Your task to perform on an android device: When is my next appointment? Image 0: 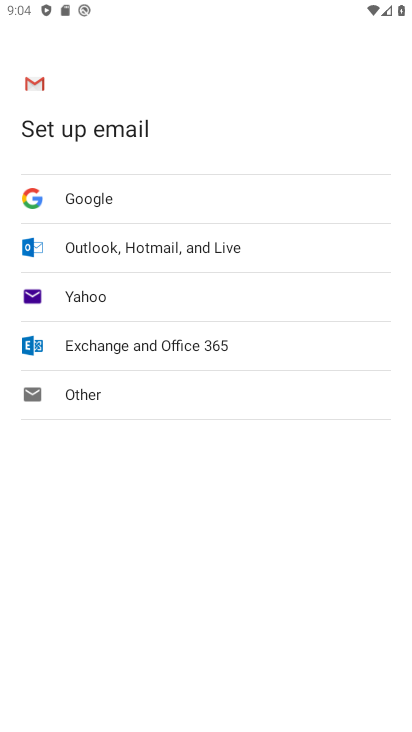
Step 0: press home button
Your task to perform on an android device: When is my next appointment? Image 1: 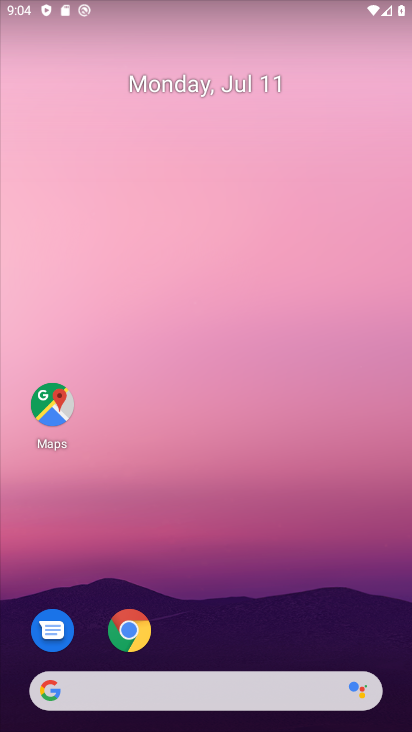
Step 1: drag from (264, 675) to (282, 16)
Your task to perform on an android device: When is my next appointment? Image 2: 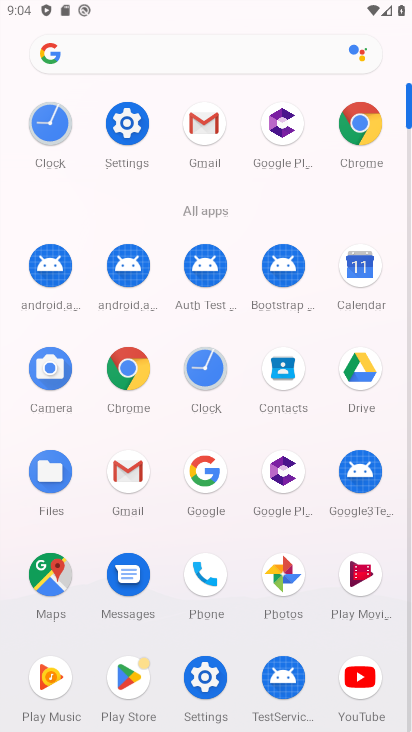
Step 2: click (359, 265)
Your task to perform on an android device: When is my next appointment? Image 3: 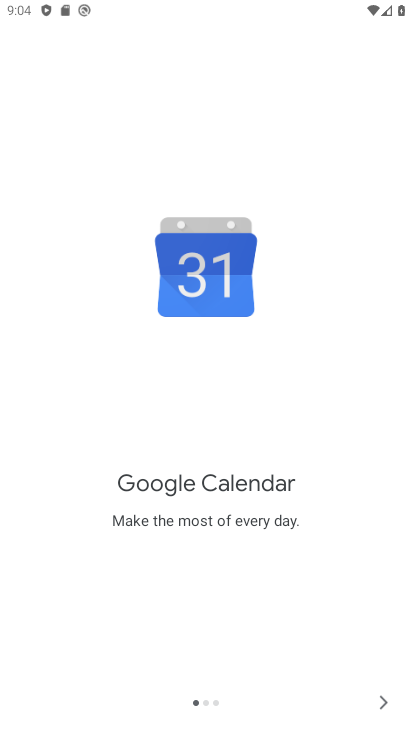
Step 3: click (385, 698)
Your task to perform on an android device: When is my next appointment? Image 4: 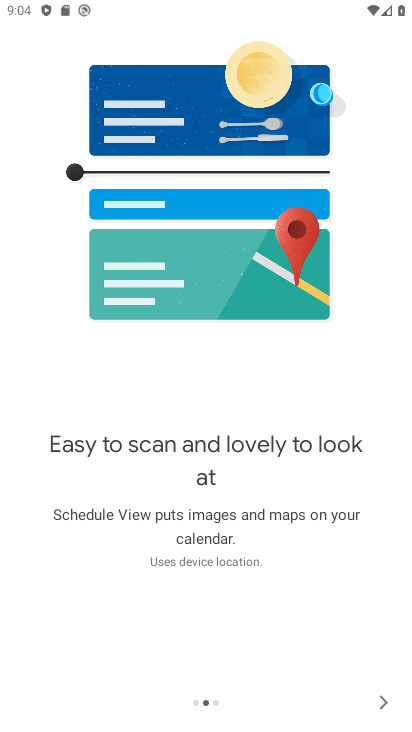
Step 4: click (385, 698)
Your task to perform on an android device: When is my next appointment? Image 5: 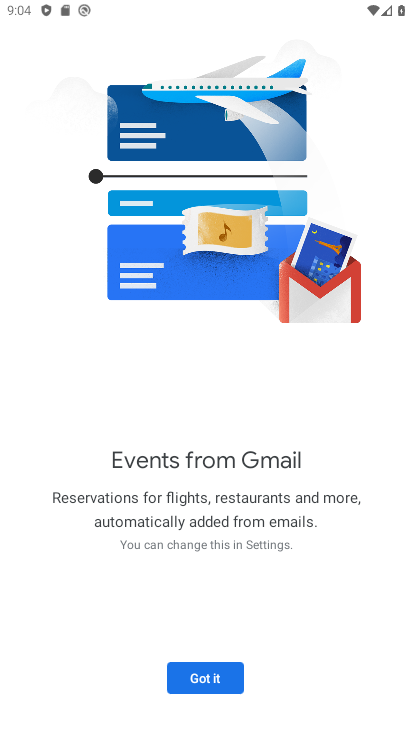
Step 5: click (225, 667)
Your task to perform on an android device: When is my next appointment? Image 6: 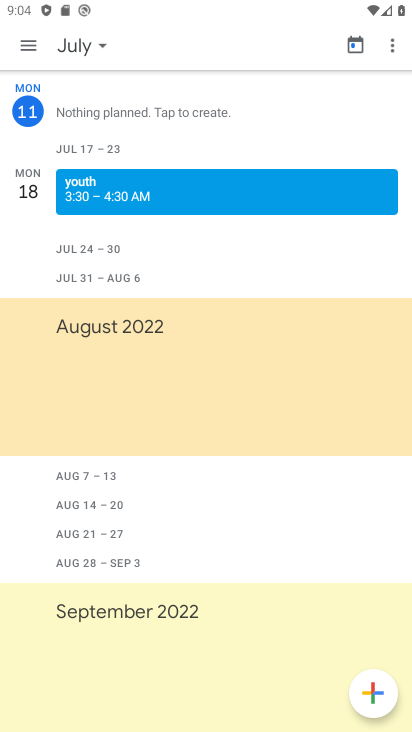
Step 6: click (99, 39)
Your task to perform on an android device: When is my next appointment? Image 7: 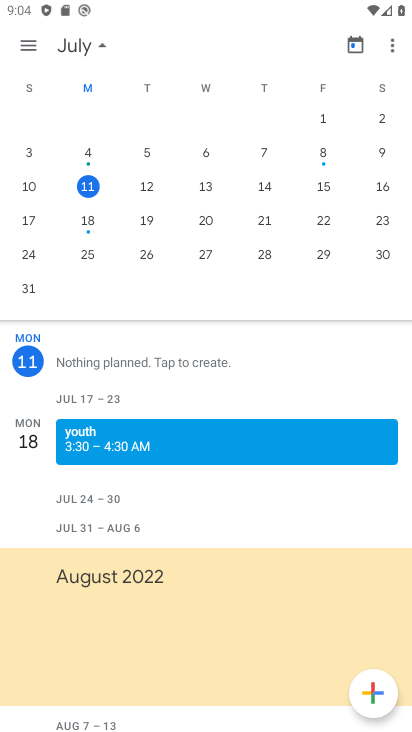
Step 7: click (154, 185)
Your task to perform on an android device: When is my next appointment? Image 8: 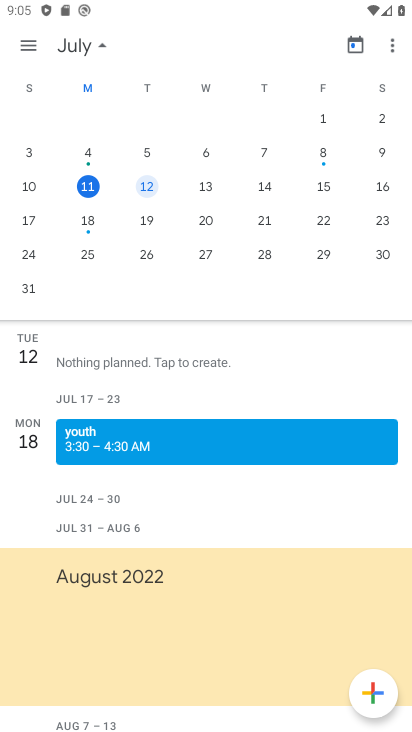
Step 8: task complete